Your task to perform on an android device: Open Google Image 0: 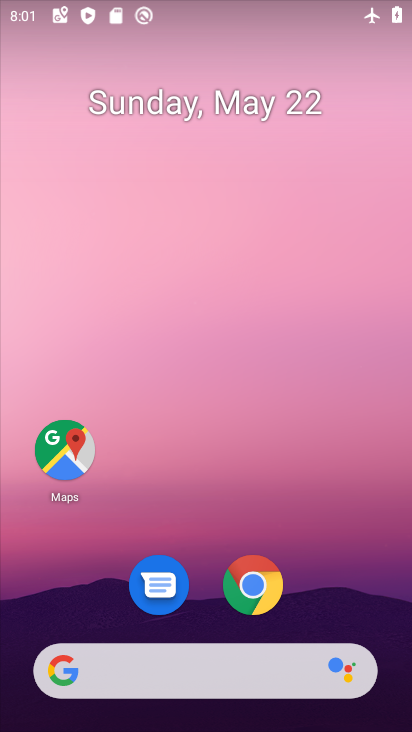
Step 0: click (166, 669)
Your task to perform on an android device: Open Google Image 1: 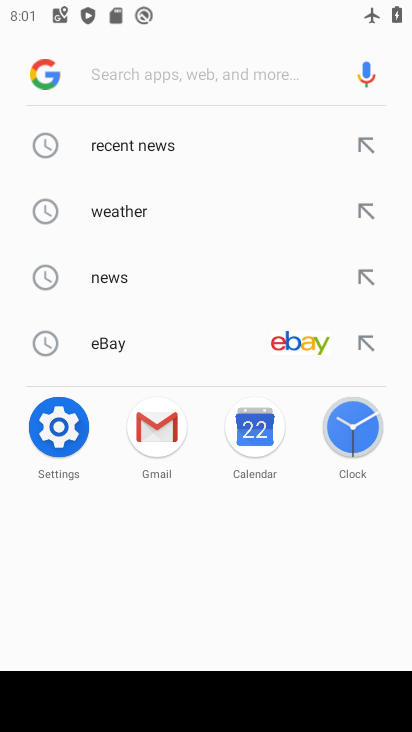
Step 1: click (43, 72)
Your task to perform on an android device: Open Google Image 2: 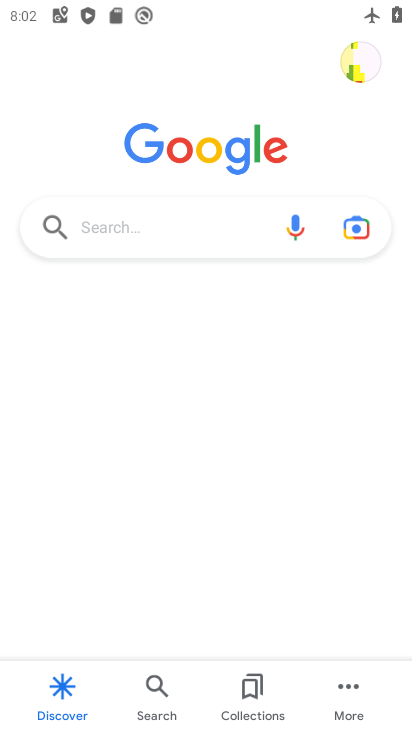
Step 2: task complete